Your task to perform on an android device: open a new tab in the chrome app Image 0: 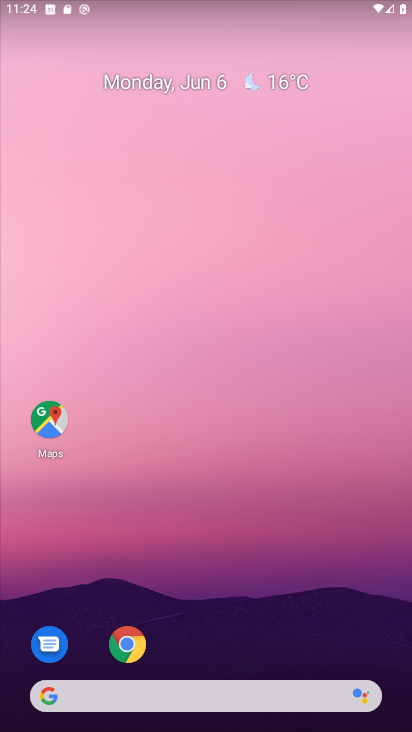
Step 0: click (133, 654)
Your task to perform on an android device: open a new tab in the chrome app Image 1: 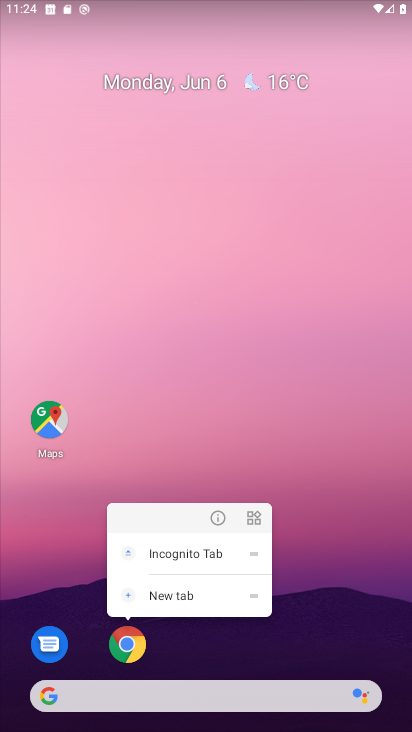
Step 1: click (133, 653)
Your task to perform on an android device: open a new tab in the chrome app Image 2: 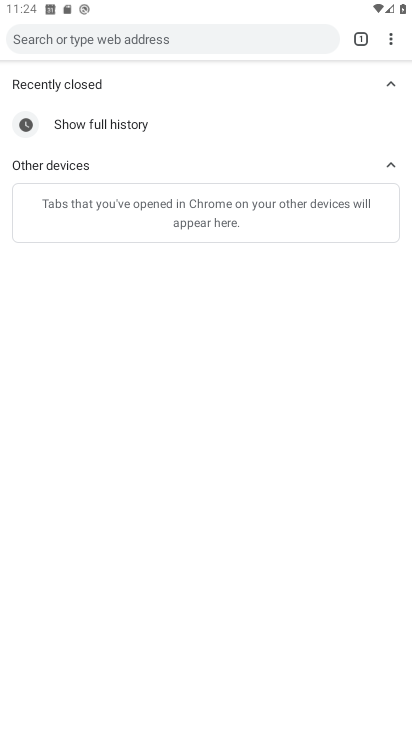
Step 2: task complete